Your task to perform on an android device: change your default location settings in chrome Image 0: 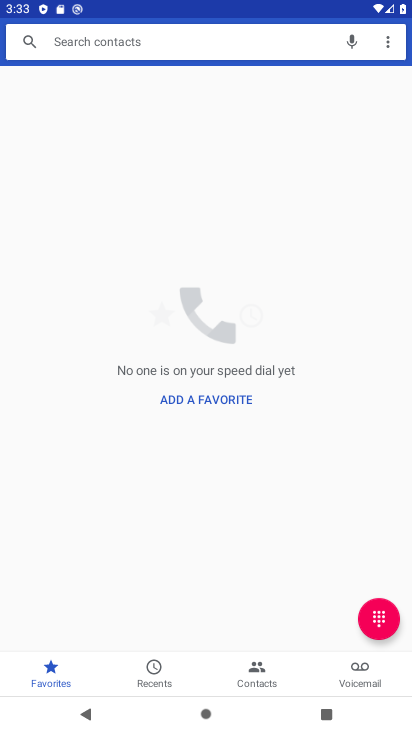
Step 0: press home button
Your task to perform on an android device: change your default location settings in chrome Image 1: 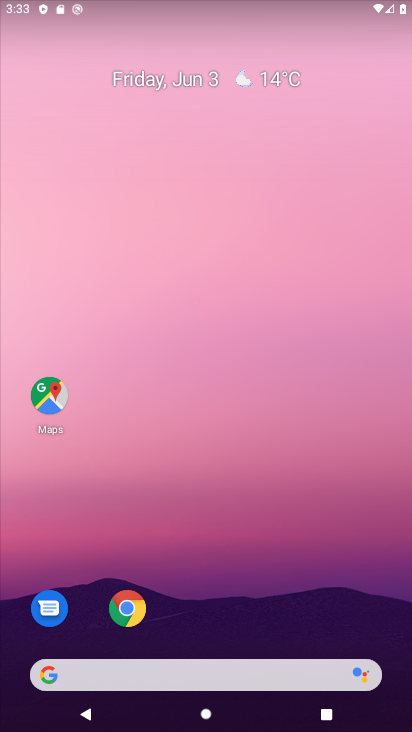
Step 1: click (133, 608)
Your task to perform on an android device: change your default location settings in chrome Image 2: 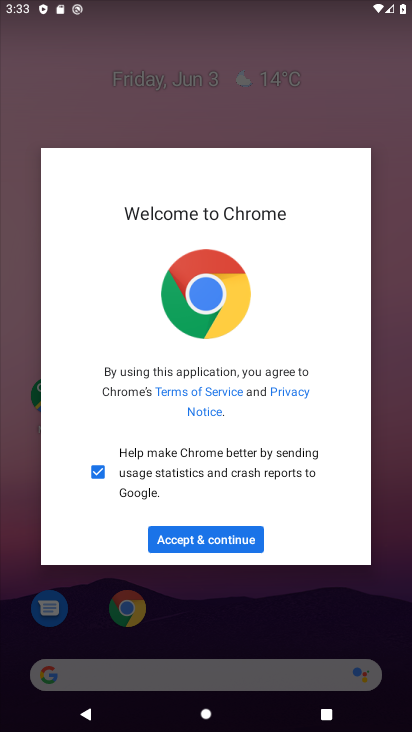
Step 2: click (189, 543)
Your task to perform on an android device: change your default location settings in chrome Image 3: 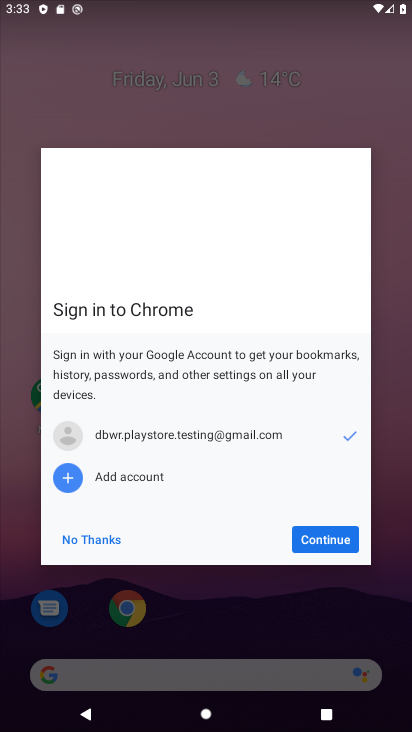
Step 3: click (352, 539)
Your task to perform on an android device: change your default location settings in chrome Image 4: 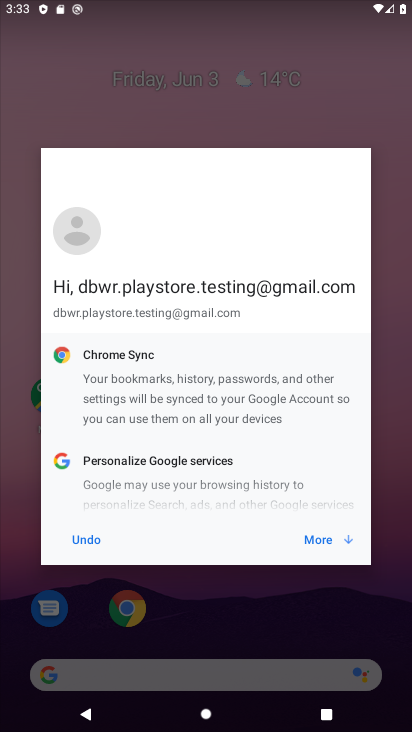
Step 4: click (325, 534)
Your task to perform on an android device: change your default location settings in chrome Image 5: 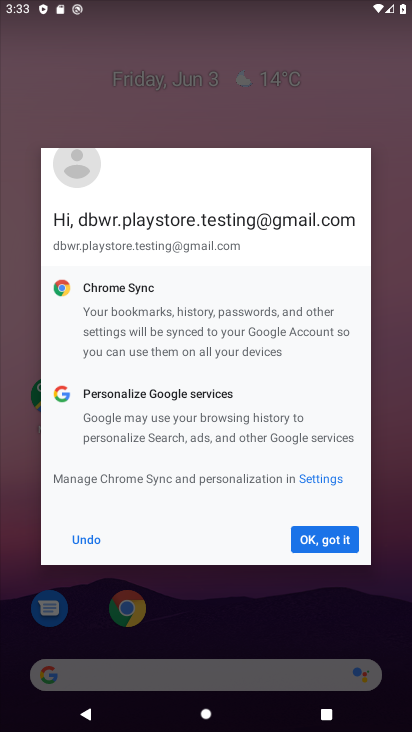
Step 5: click (328, 544)
Your task to perform on an android device: change your default location settings in chrome Image 6: 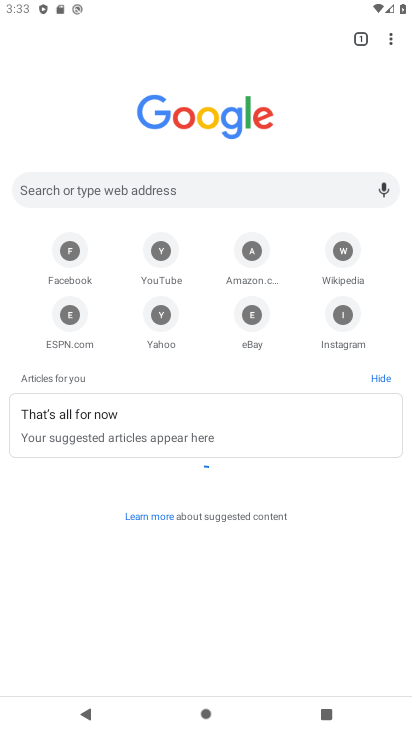
Step 6: click (388, 42)
Your task to perform on an android device: change your default location settings in chrome Image 7: 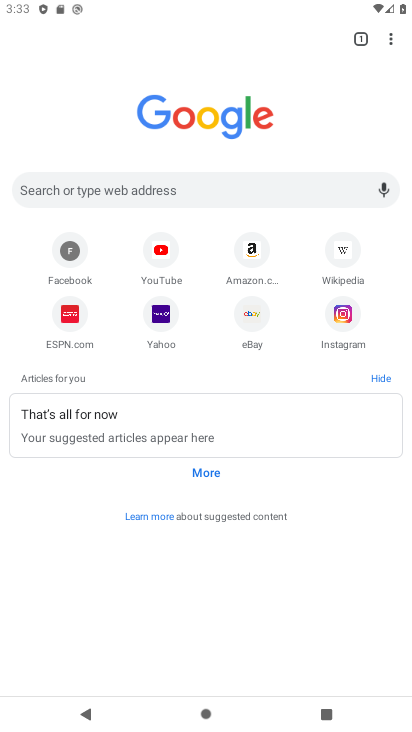
Step 7: click (394, 38)
Your task to perform on an android device: change your default location settings in chrome Image 8: 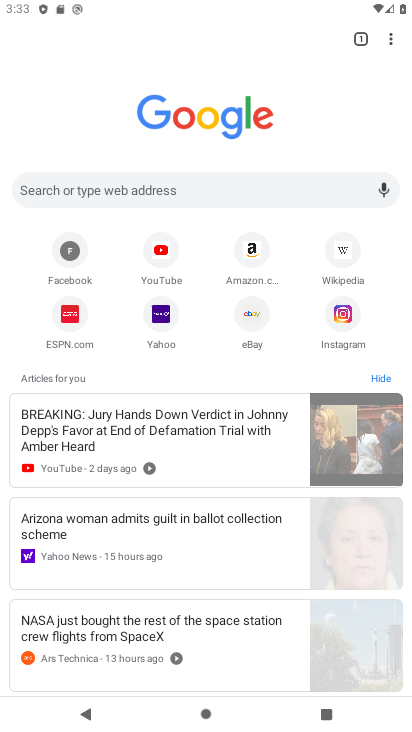
Step 8: click (389, 44)
Your task to perform on an android device: change your default location settings in chrome Image 9: 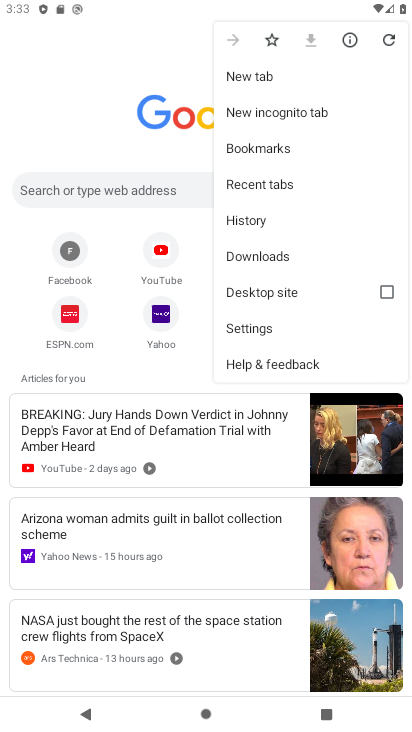
Step 9: click (262, 328)
Your task to perform on an android device: change your default location settings in chrome Image 10: 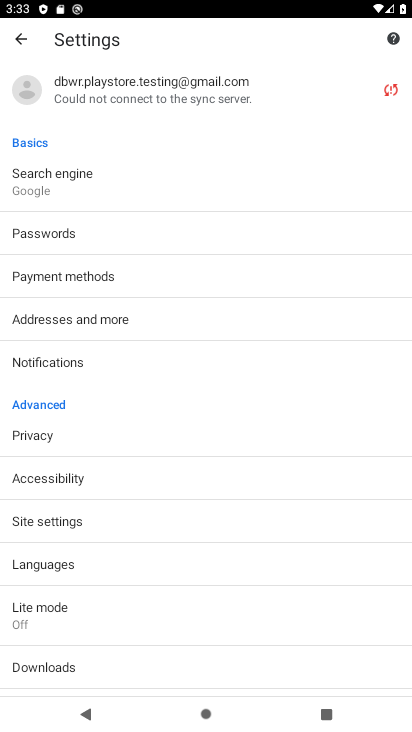
Step 10: click (59, 188)
Your task to perform on an android device: change your default location settings in chrome Image 11: 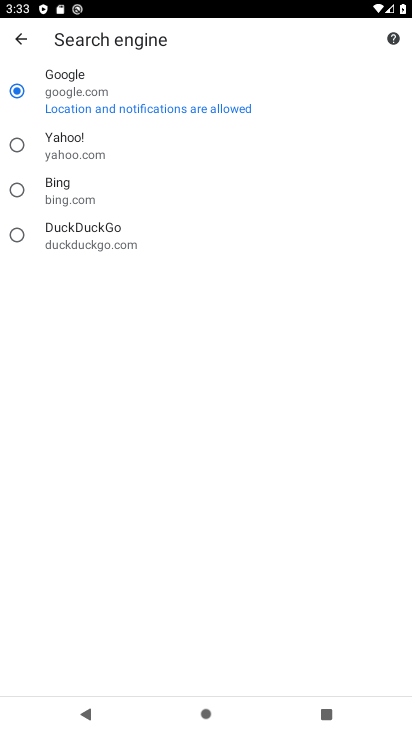
Step 11: press back button
Your task to perform on an android device: change your default location settings in chrome Image 12: 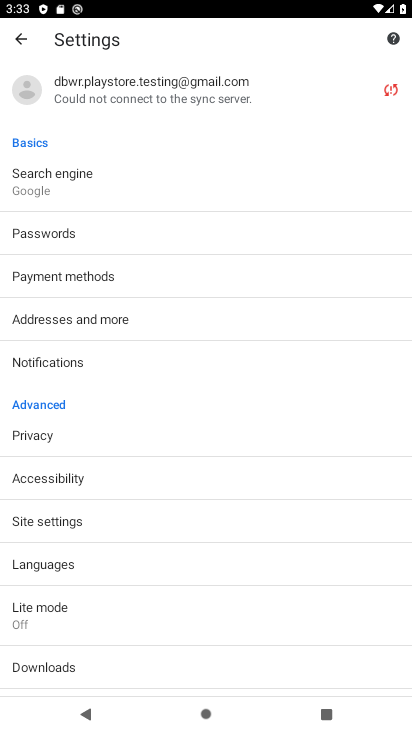
Step 12: click (56, 526)
Your task to perform on an android device: change your default location settings in chrome Image 13: 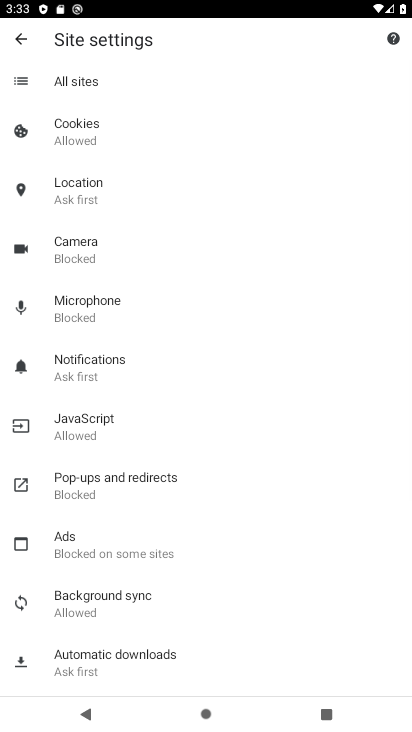
Step 13: click (102, 196)
Your task to perform on an android device: change your default location settings in chrome Image 14: 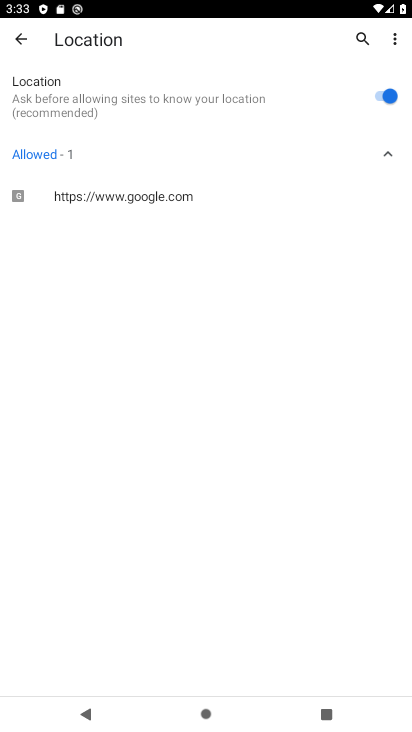
Step 14: click (384, 96)
Your task to perform on an android device: change your default location settings in chrome Image 15: 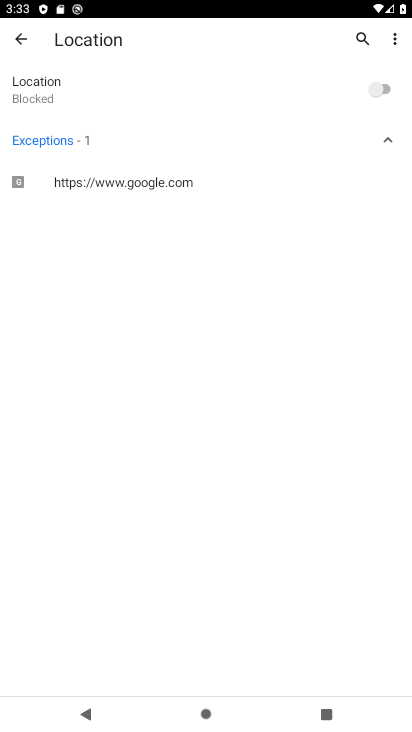
Step 15: task complete